Your task to perform on an android device: Go to calendar. Show me events next week Image 0: 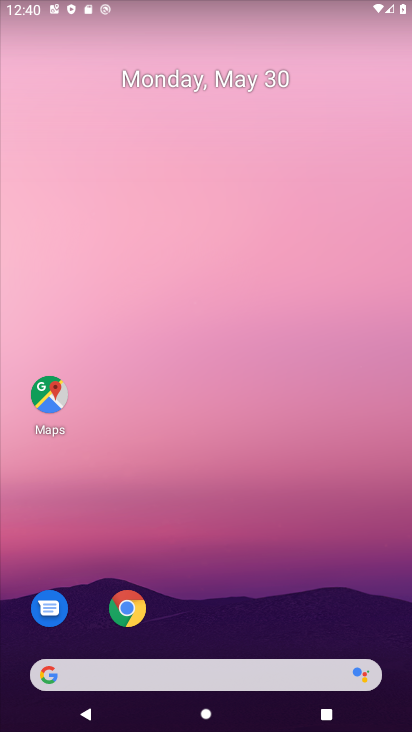
Step 0: drag from (207, 521) to (202, 220)
Your task to perform on an android device: Go to calendar. Show me events next week Image 1: 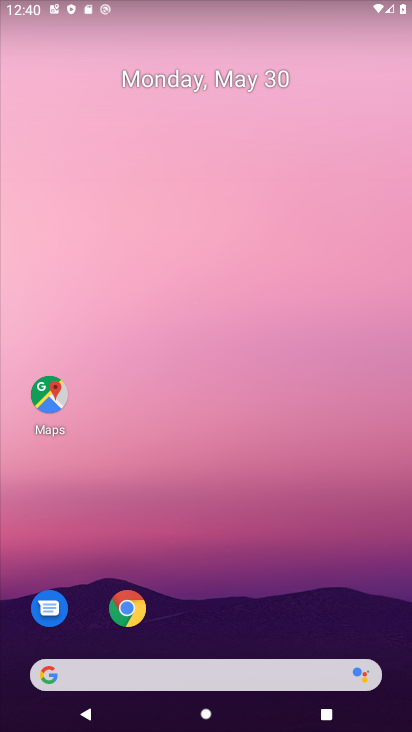
Step 1: drag from (259, 614) to (264, 353)
Your task to perform on an android device: Go to calendar. Show me events next week Image 2: 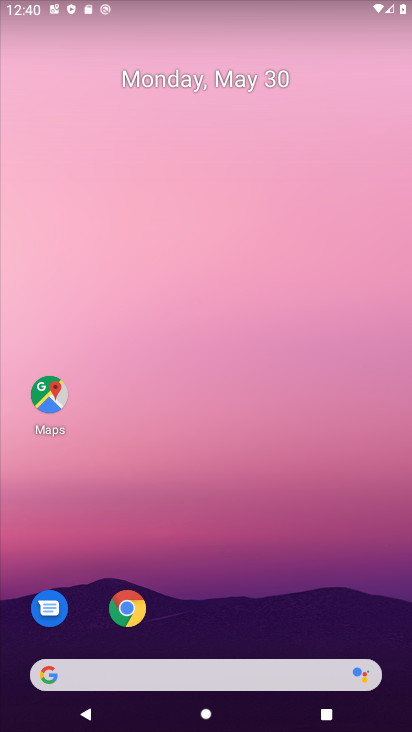
Step 2: drag from (219, 638) to (231, 400)
Your task to perform on an android device: Go to calendar. Show me events next week Image 3: 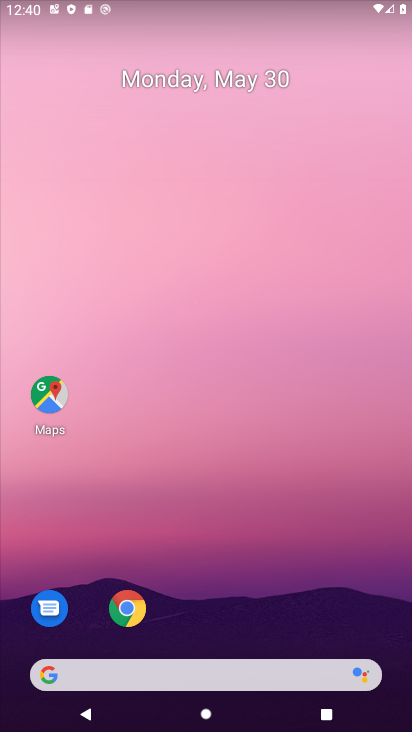
Step 3: drag from (221, 575) to (241, 373)
Your task to perform on an android device: Go to calendar. Show me events next week Image 4: 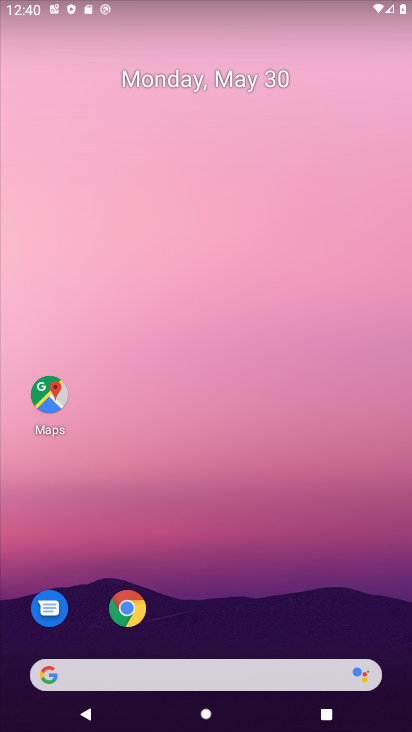
Step 4: drag from (220, 696) to (326, 0)
Your task to perform on an android device: Go to calendar. Show me events next week Image 5: 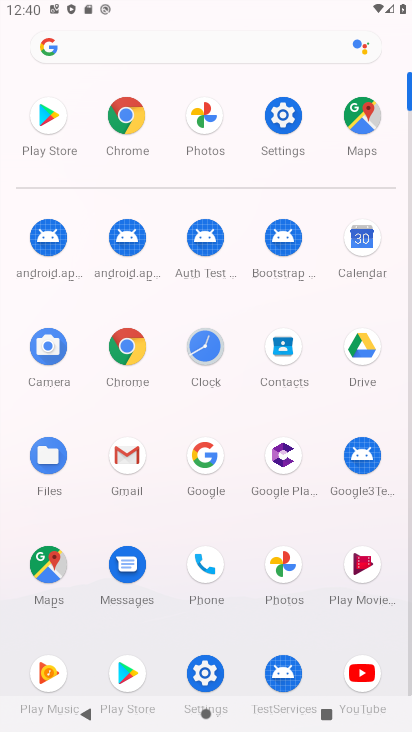
Step 5: click (362, 247)
Your task to perform on an android device: Go to calendar. Show me events next week Image 6: 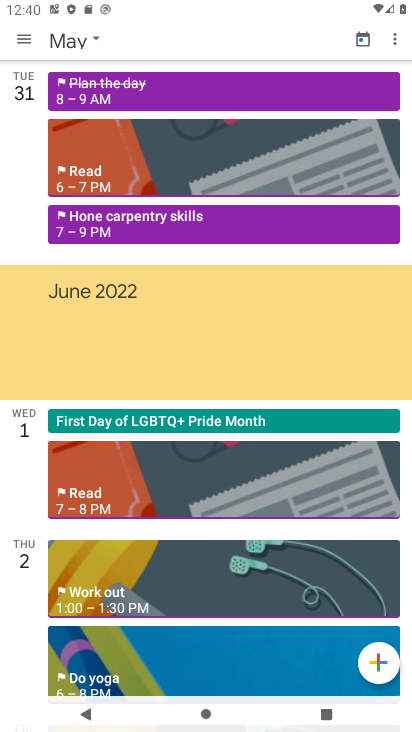
Step 6: task complete